Your task to perform on an android device: check data usage Image 0: 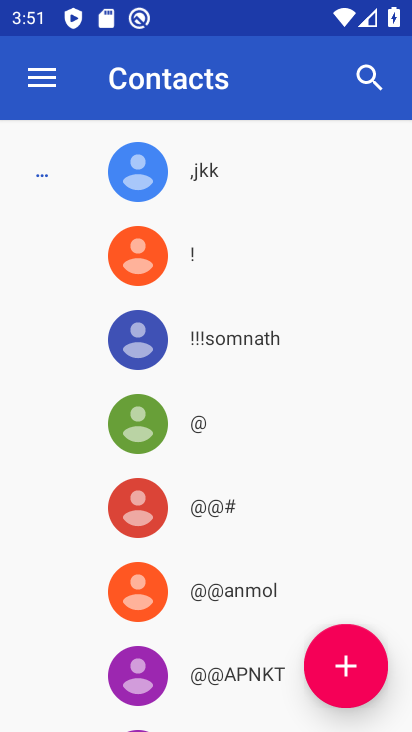
Step 0: press home button
Your task to perform on an android device: check data usage Image 1: 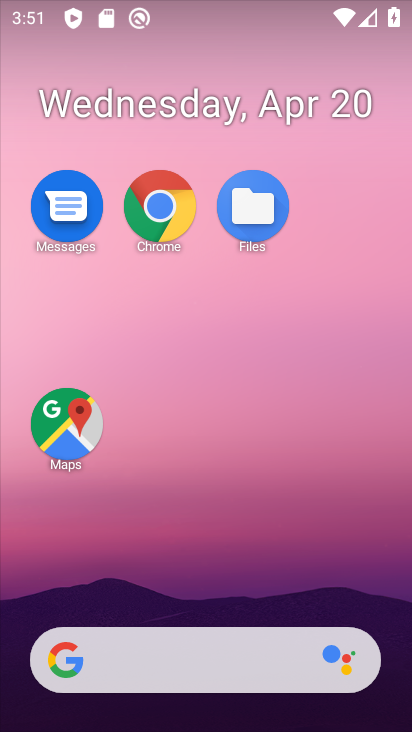
Step 1: drag from (230, 571) to (285, 12)
Your task to perform on an android device: check data usage Image 2: 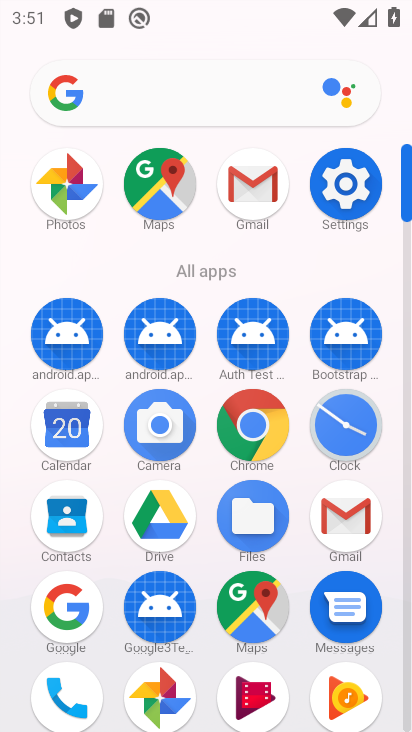
Step 2: click (349, 215)
Your task to perform on an android device: check data usage Image 3: 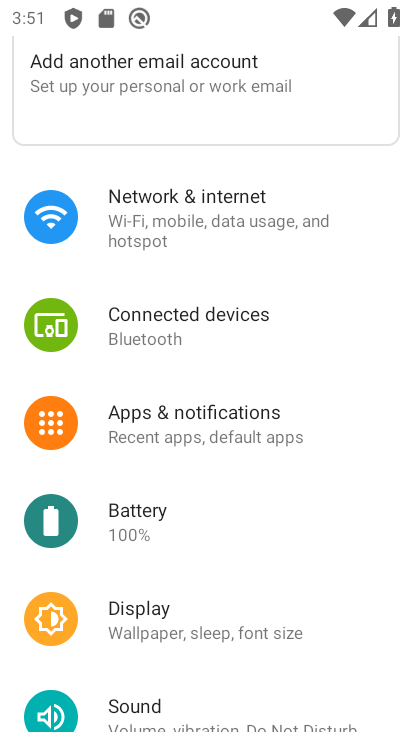
Step 3: click (194, 238)
Your task to perform on an android device: check data usage Image 4: 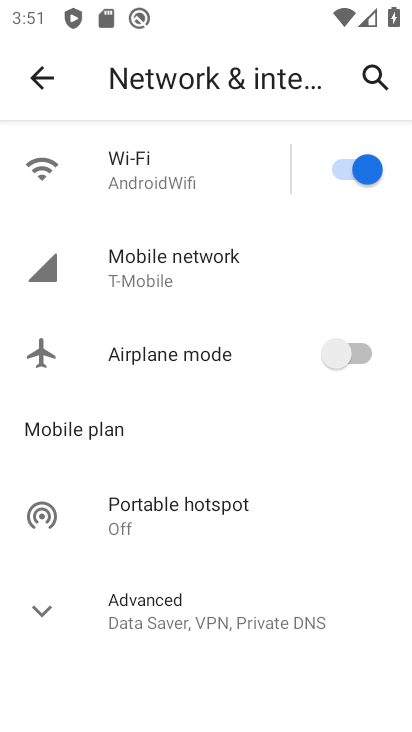
Step 4: click (202, 239)
Your task to perform on an android device: check data usage Image 5: 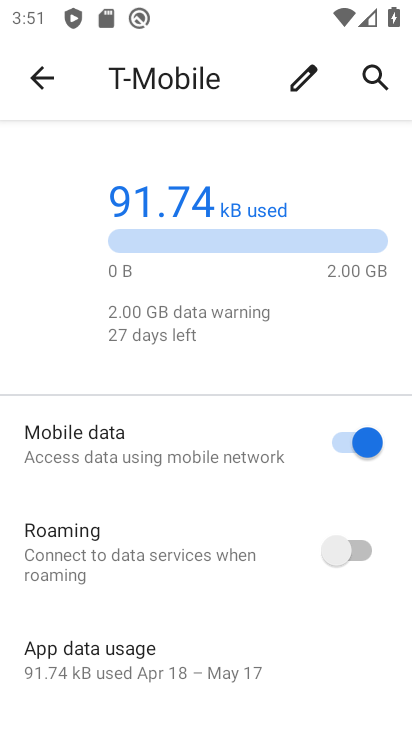
Step 5: click (211, 276)
Your task to perform on an android device: check data usage Image 6: 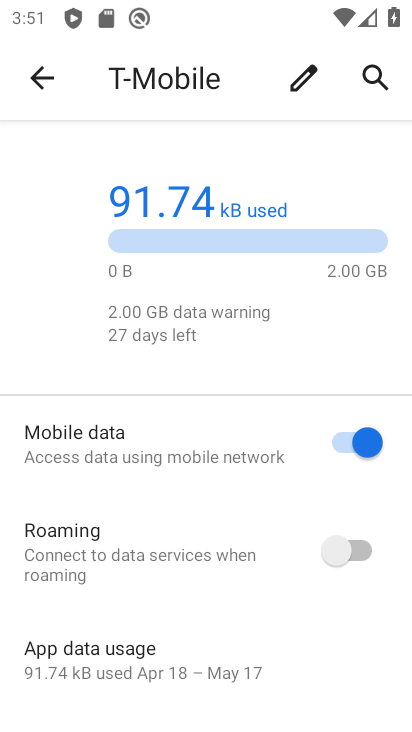
Step 6: click (193, 328)
Your task to perform on an android device: check data usage Image 7: 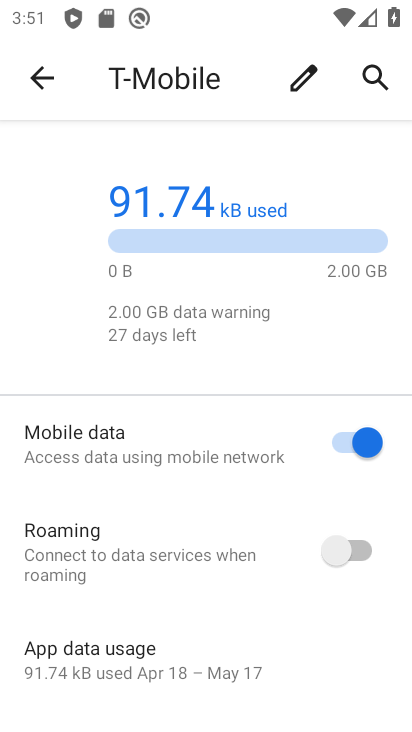
Step 7: drag from (164, 595) to (175, 289)
Your task to perform on an android device: check data usage Image 8: 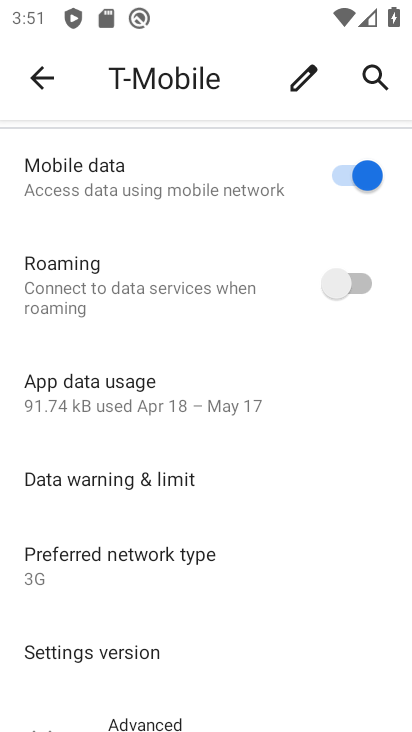
Step 8: click (117, 627)
Your task to perform on an android device: check data usage Image 9: 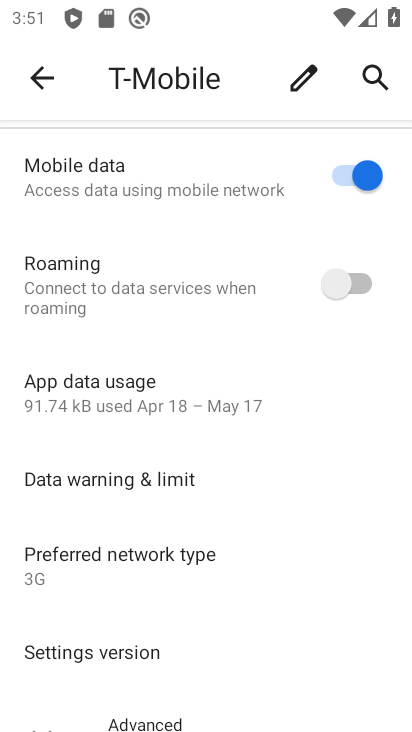
Step 9: task complete